Your task to perform on an android device: open app "Yahoo Mail" (install if not already installed) and go to login screen Image 0: 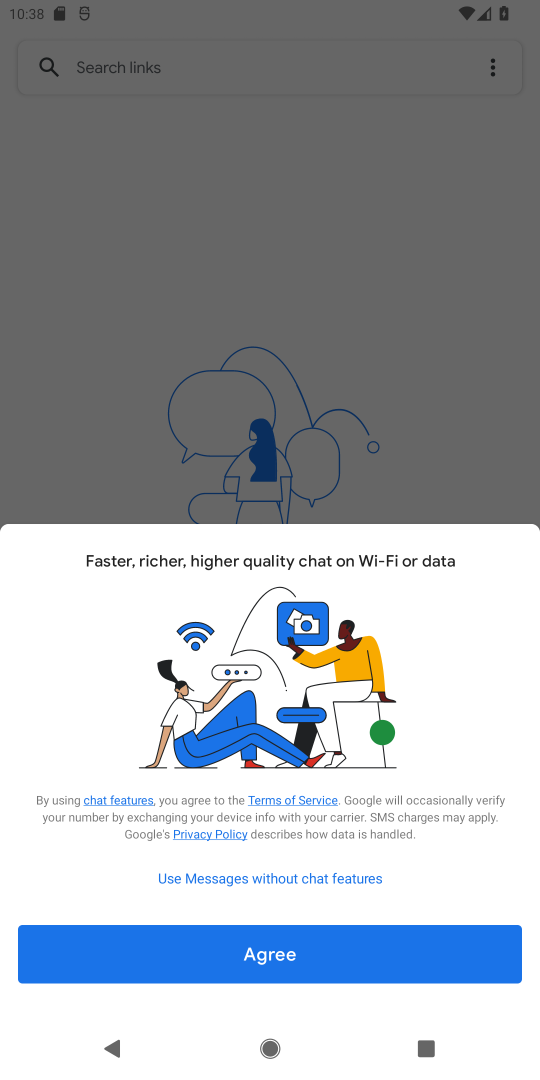
Step 0: press back button
Your task to perform on an android device: open app "Yahoo Mail" (install if not already installed) and go to login screen Image 1: 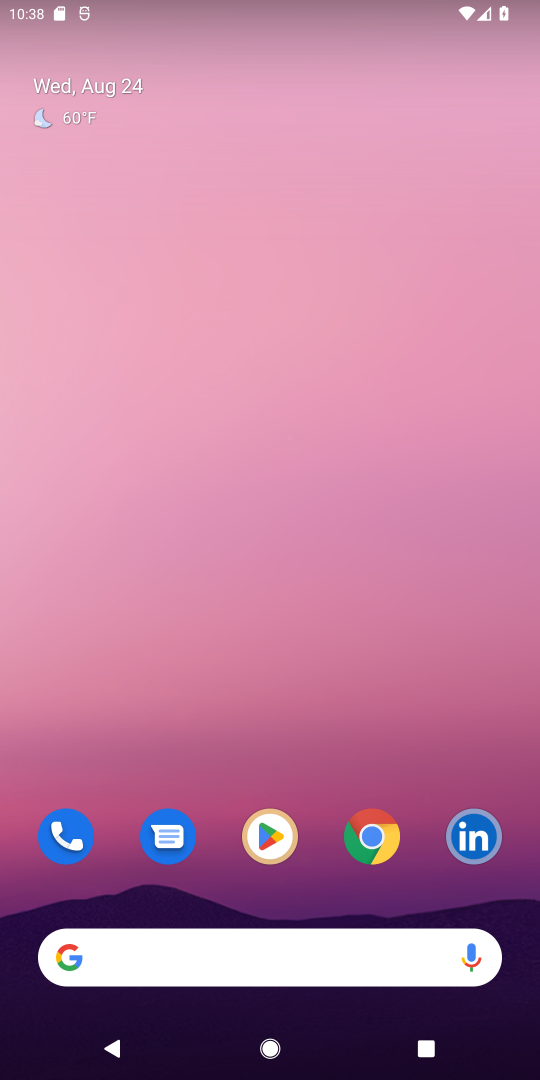
Step 1: click (273, 826)
Your task to perform on an android device: open app "Yahoo Mail" (install if not already installed) and go to login screen Image 2: 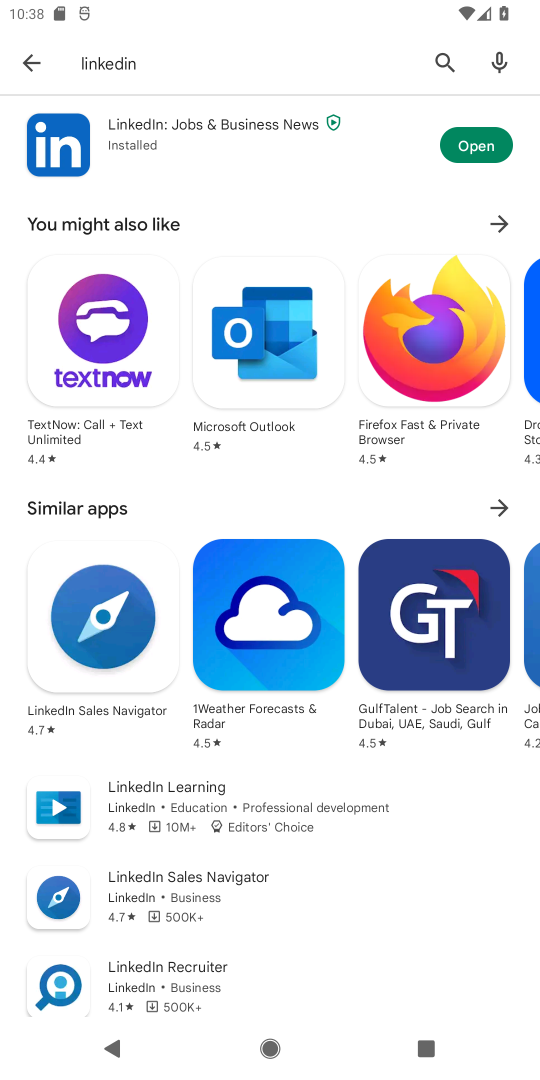
Step 2: click (429, 61)
Your task to perform on an android device: open app "Yahoo Mail" (install if not already installed) and go to login screen Image 3: 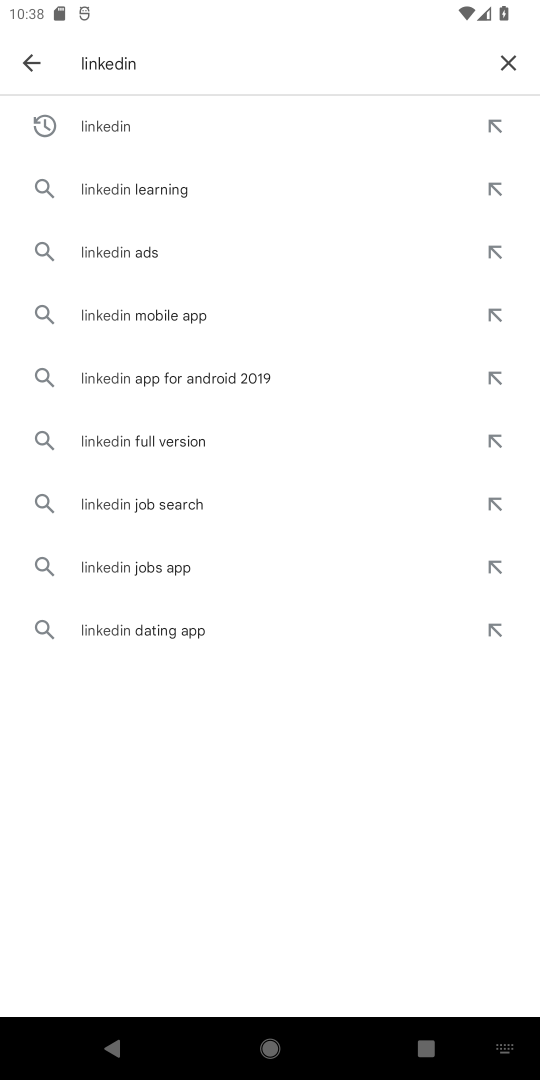
Step 3: click (503, 61)
Your task to perform on an android device: open app "Yahoo Mail" (install if not already installed) and go to login screen Image 4: 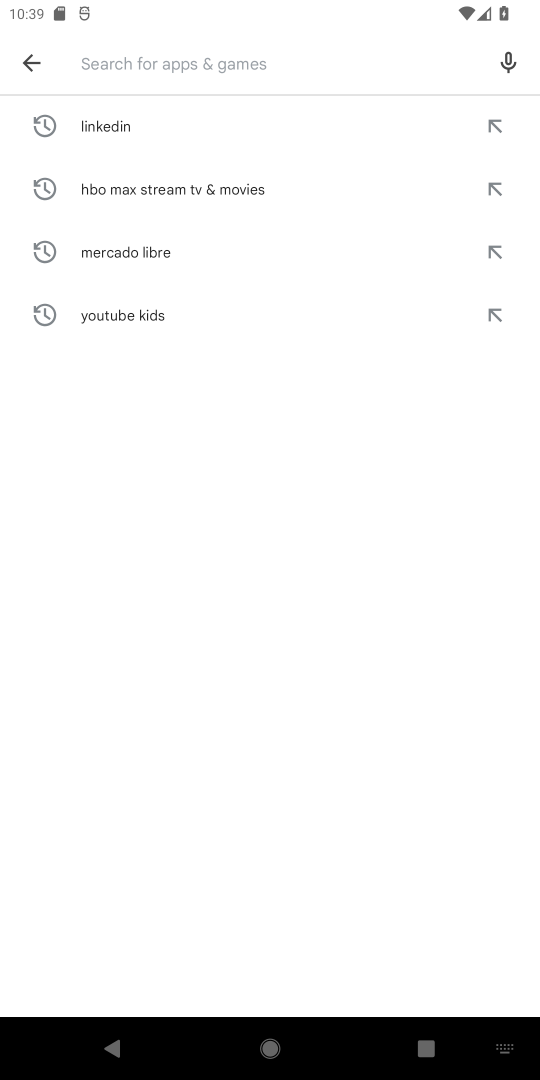
Step 4: type "Yahoo Mai"
Your task to perform on an android device: open app "Yahoo Mail" (install if not already installed) and go to login screen Image 5: 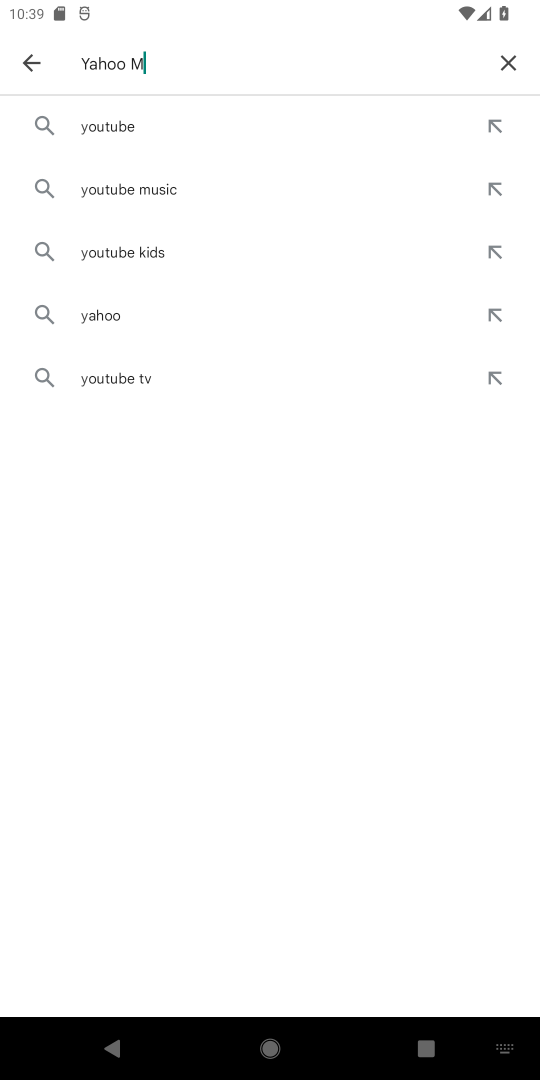
Step 5: type ""
Your task to perform on an android device: open app "Yahoo Mail" (install if not already installed) and go to login screen Image 6: 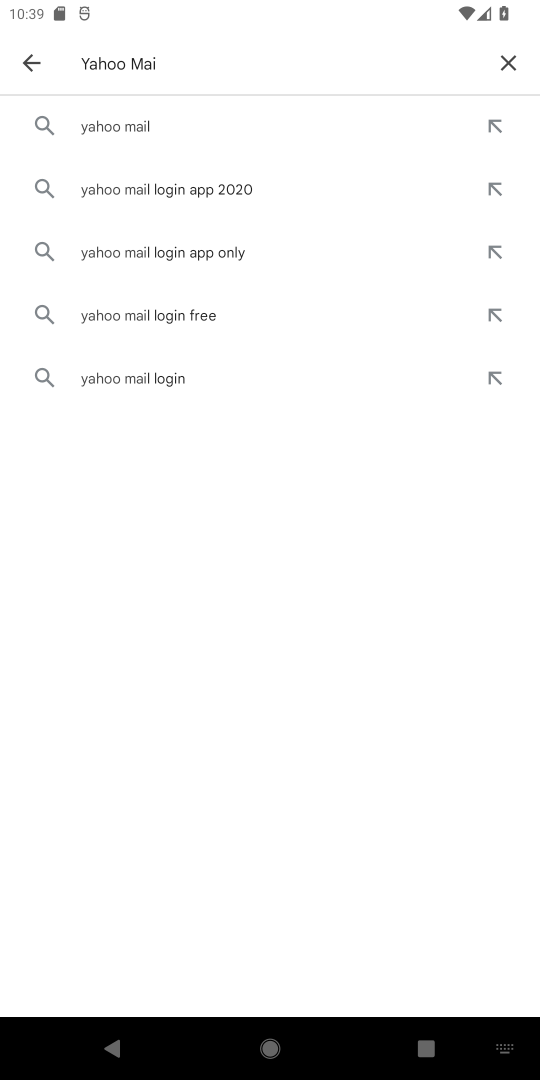
Step 6: click (236, 128)
Your task to perform on an android device: open app "Yahoo Mail" (install if not already installed) and go to login screen Image 7: 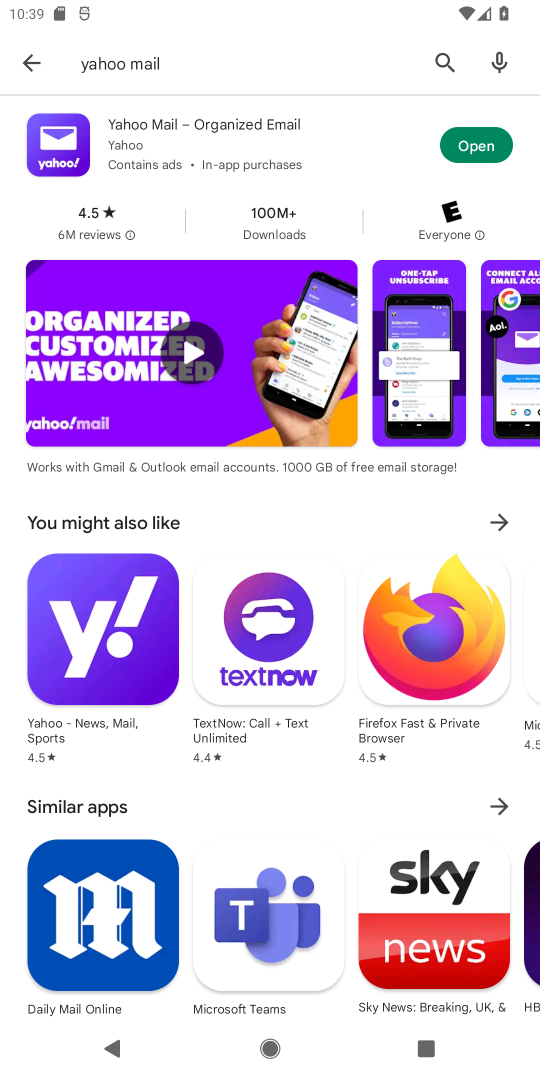
Step 7: click (496, 138)
Your task to perform on an android device: open app "Yahoo Mail" (install if not already installed) and go to login screen Image 8: 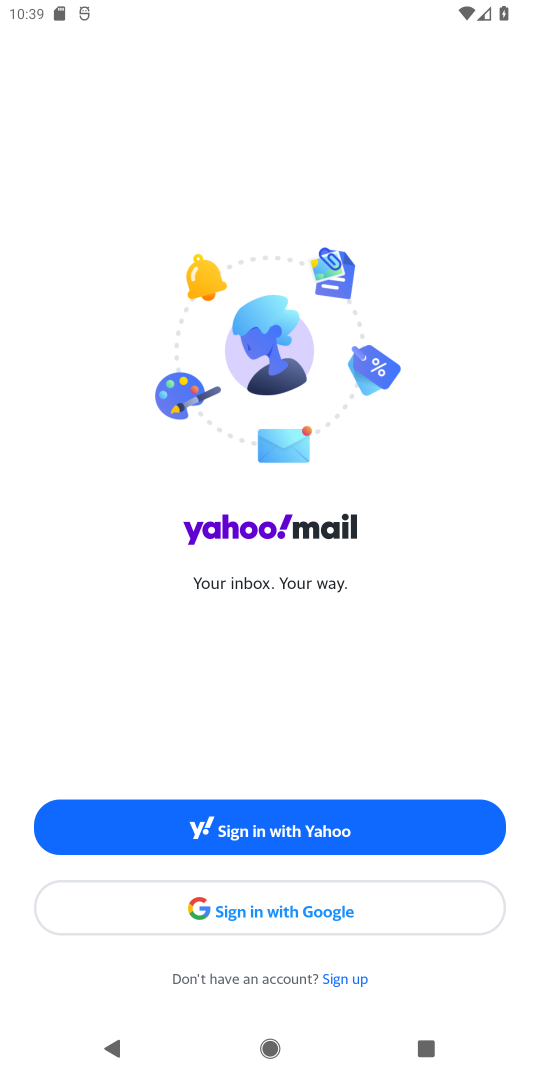
Step 8: task complete